Your task to perform on an android device: find photos in the google photos app Image 0: 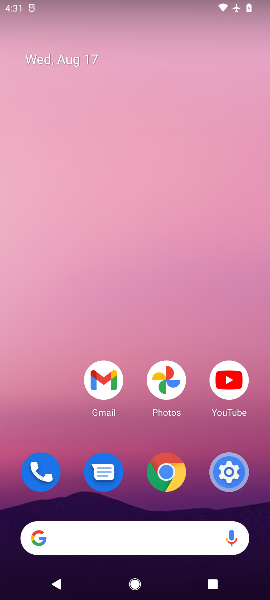
Step 0: click (161, 383)
Your task to perform on an android device: find photos in the google photos app Image 1: 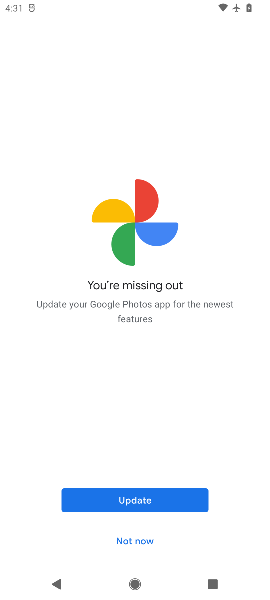
Step 1: click (133, 536)
Your task to perform on an android device: find photos in the google photos app Image 2: 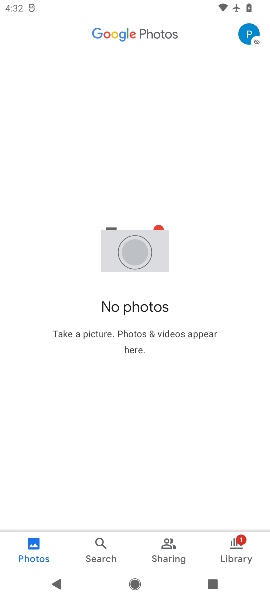
Step 2: task complete